Your task to perform on an android device: check out phone information Image 0: 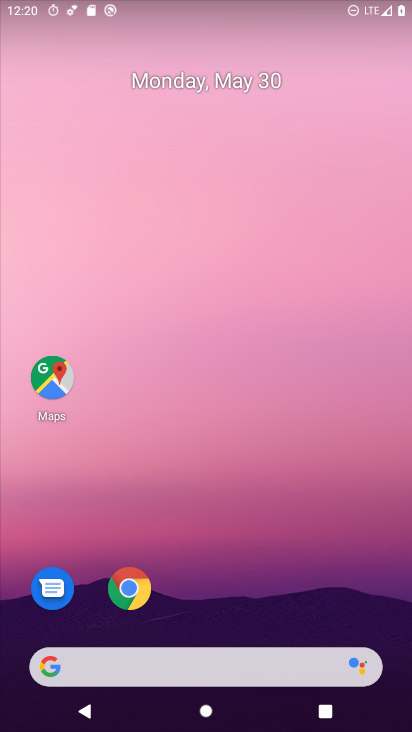
Step 0: drag from (279, 606) to (265, 101)
Your task to perform on an android device: check out phone information Image 1: 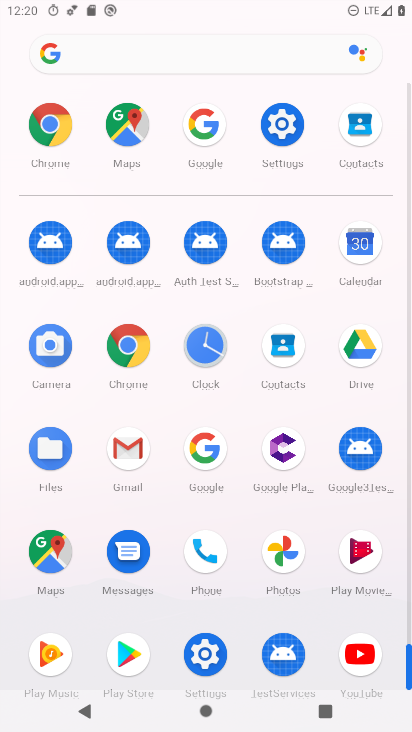
Step 1: drag from (163, 210) to (146, 26)
Your task to perform on an android device: check out phone information Image 2: 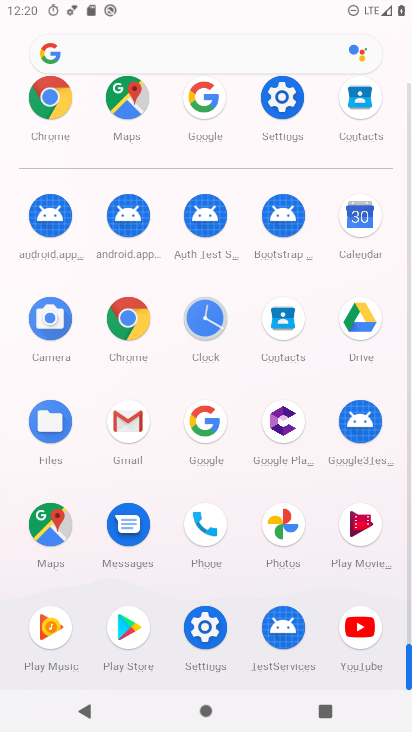
Step 2: click (214, 635)
Your task to perform on an android device: check out phone information Image 3: 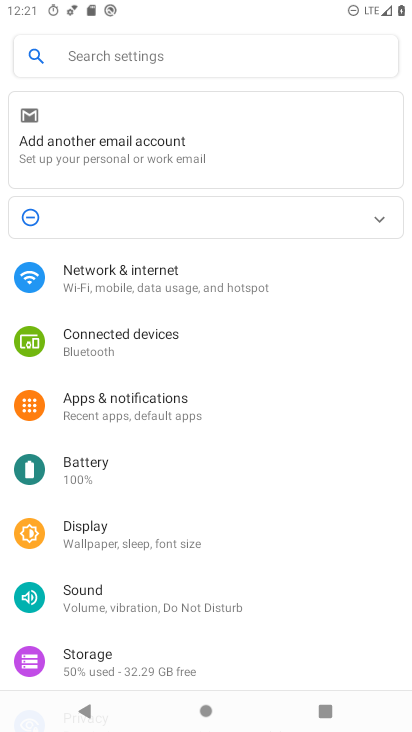
Step 3: drag from (240, 611) to (204, 67)
Your task to perform on an android device: check out phone information Image 4: 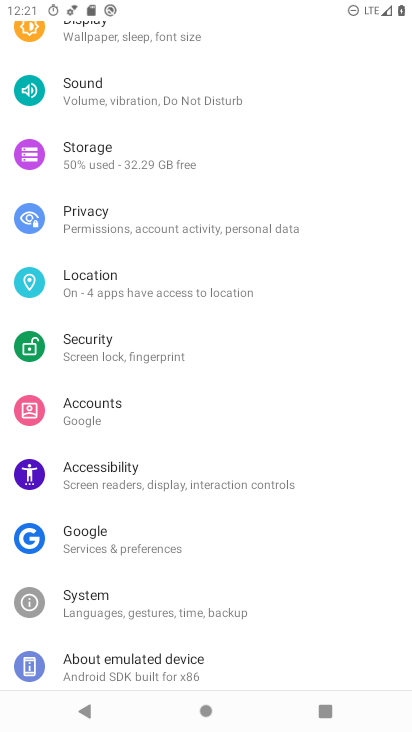
Step 4: click (150, 656)
Your task to perform on an android device: check out phone information Image 5: 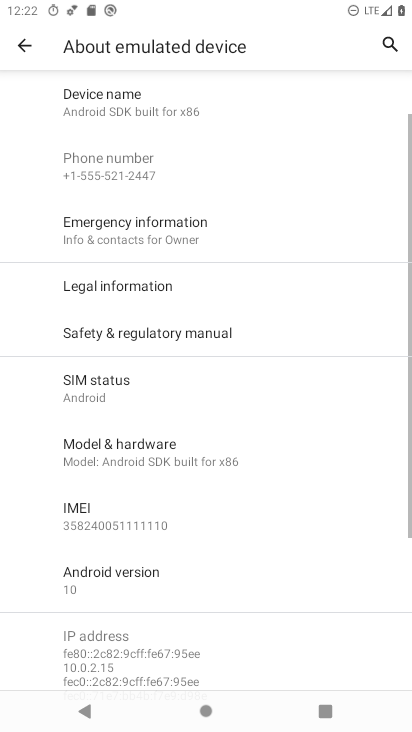
Step 5: task complete